Your task to perform on an android device: Open maps Image 0: 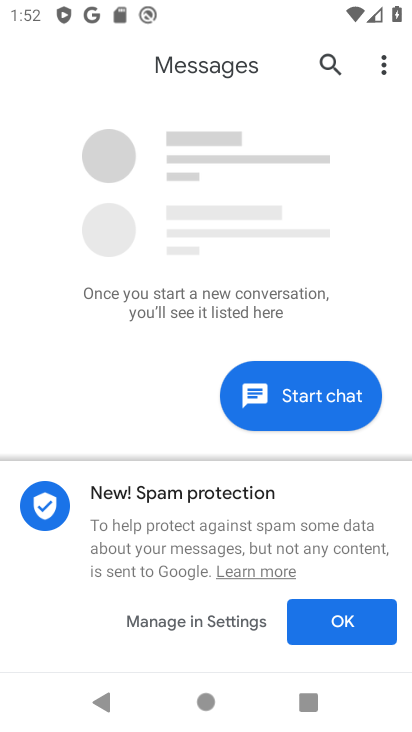
Step 0: click (303, 632)
Your task to perform on an android device: Open maps Image 1: 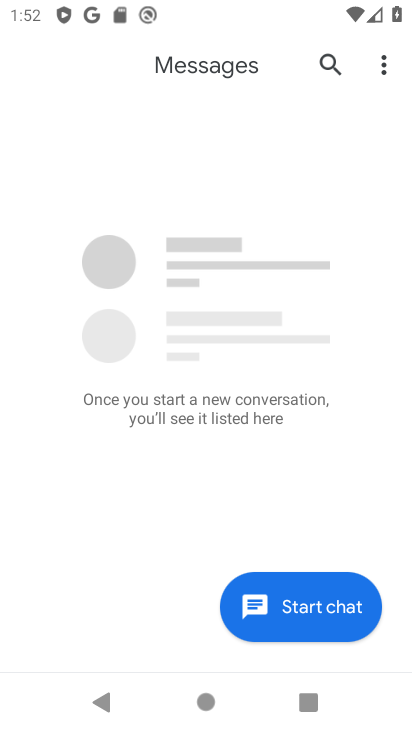
Step 1: press home button
Your task to perform on an android device: Open maps Image 2: 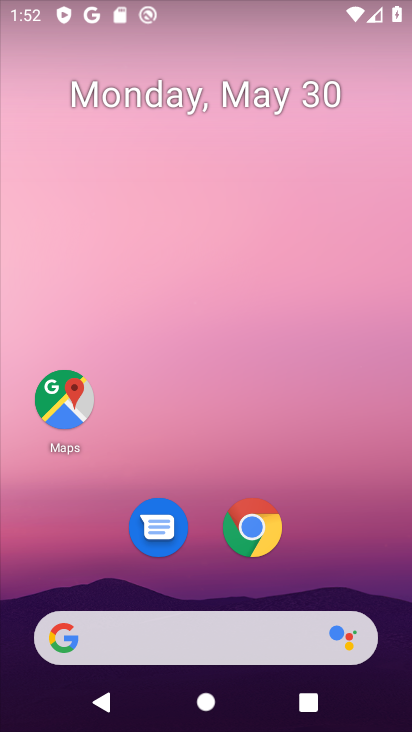
Step 2: drag from (207, 518) to (308, 212)
Your task to perform on an android device: Open maps Image 3: 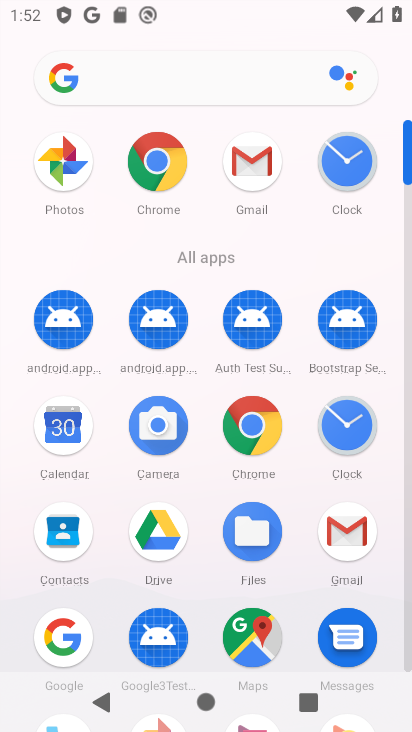
Step 3: click (247, 640)
Your task to perform on an android device: Open maps Image 4: 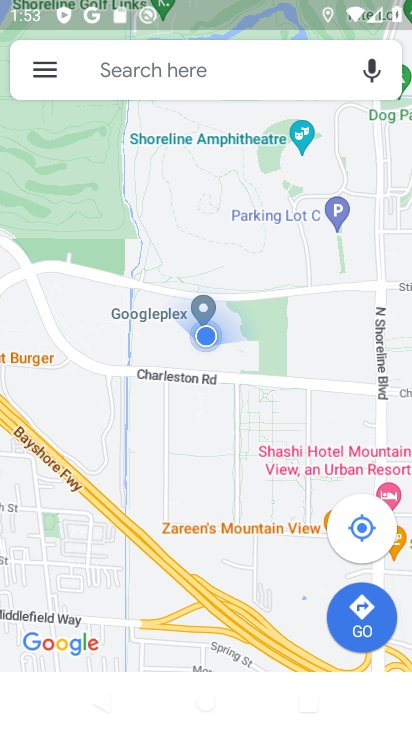
Step 4: task complete